Your task to perform on an android device: Open calendar and show me the third week of next month Image 0: 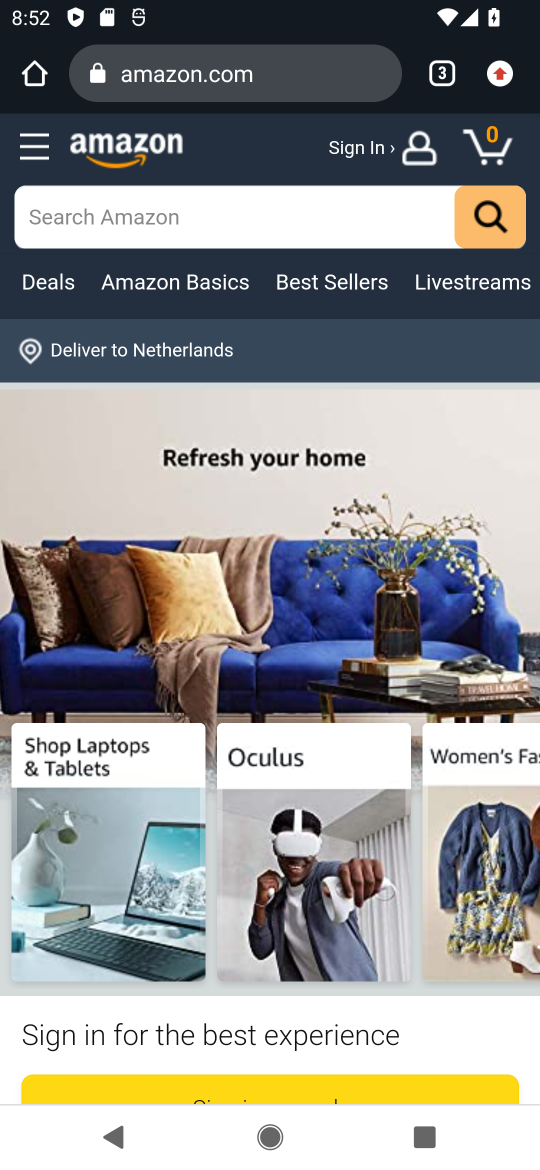
Step 0: press home button
Your task to perform on an android device: Open calendar and show me the third week of next month Image 1: 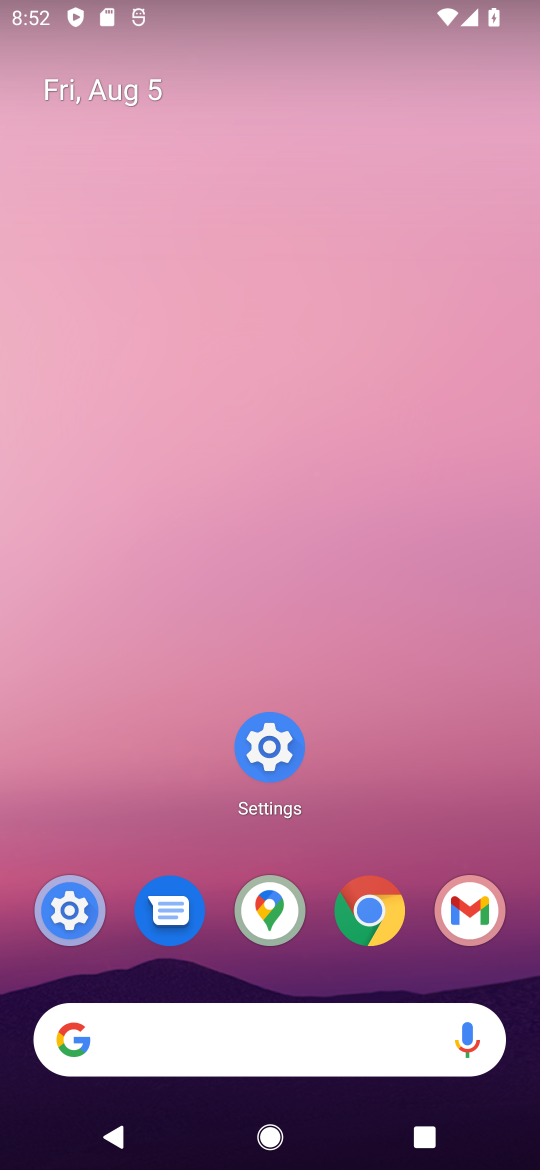
Step 1: drag from (240, 1043) to (376, 284)
Your task to perform on an android device: Open calendar and show me the third week of next month Image 2: 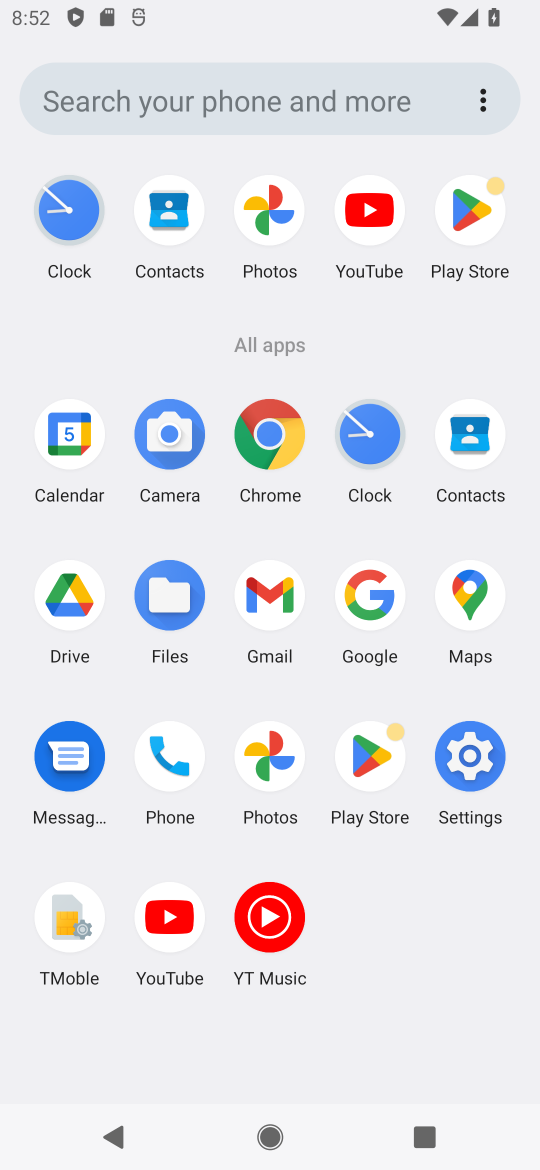
Step 2: click (72, 438)
Your task to perform on an android device: Open calendar and show me the third week of next month Image 3: 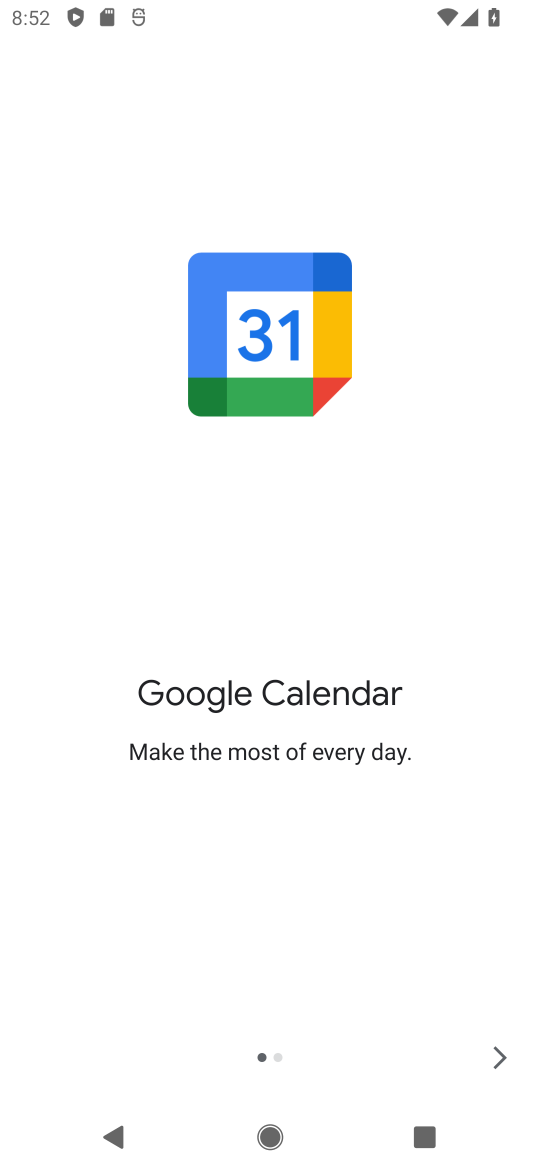
Step 3: click (505, 1047)
Your task to perform on an android device: Open calendar and show me the third week of next month Image 4: 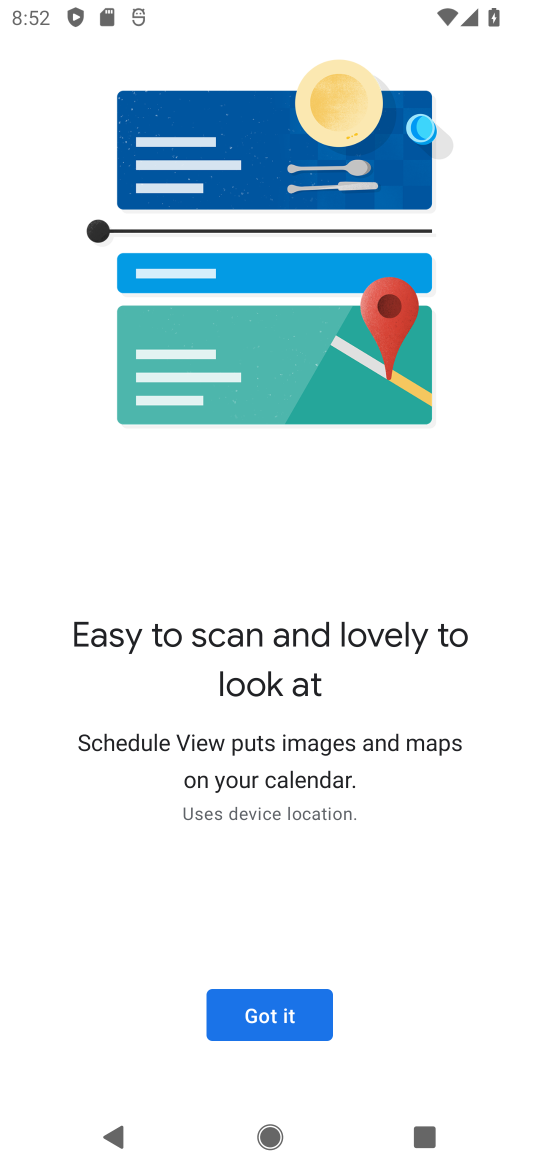
Step 4: click (284, 1004)
Your task to perform on an android device: Open calendar and show me the third week of next month Image 5: 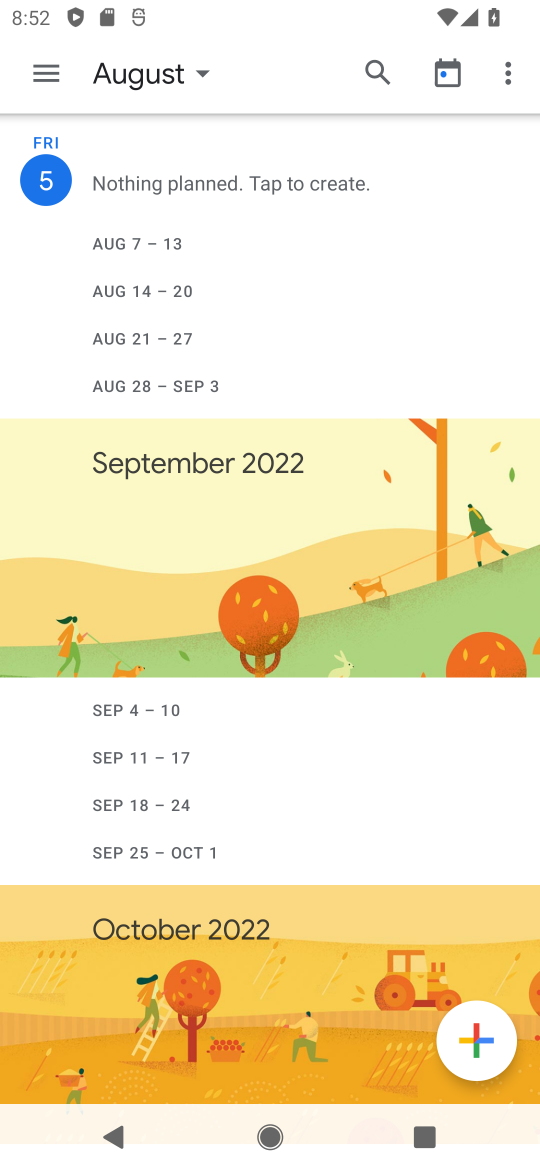
Step 5: click (160, 66)
Your task to perform on an android device: Open calendar and show me the third week of next month Image 6: 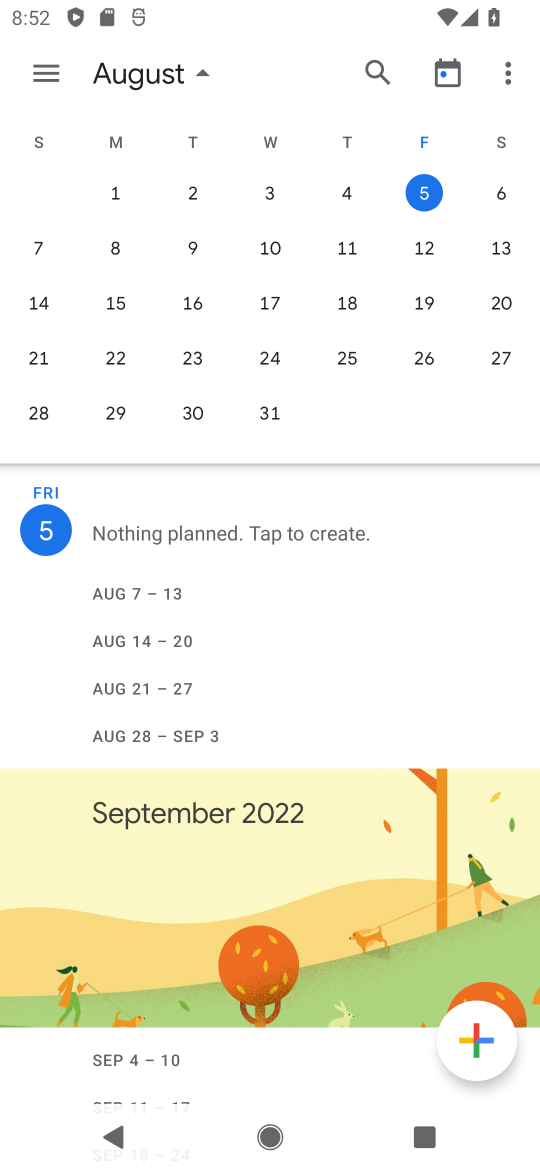
Step 6: drag from (512, 333) to (22, 356)
Your task to perform on an android device: Open calendar and show me the third week of next month Image 7: 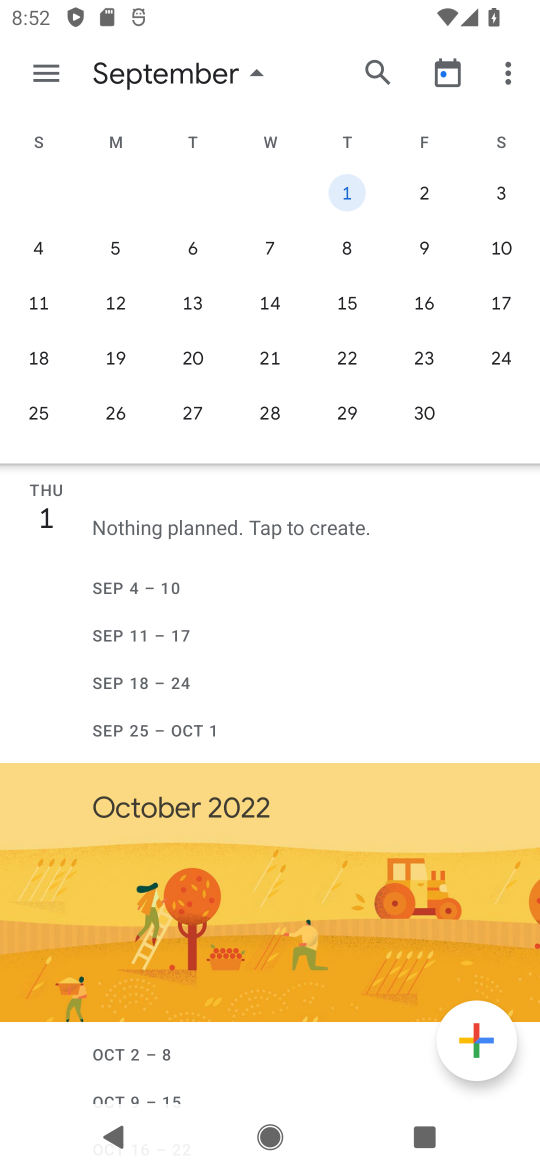
Step 7: click (45, 305)
Your task to perform on an android device: Open calendar and show me the third week of next month Image 8: 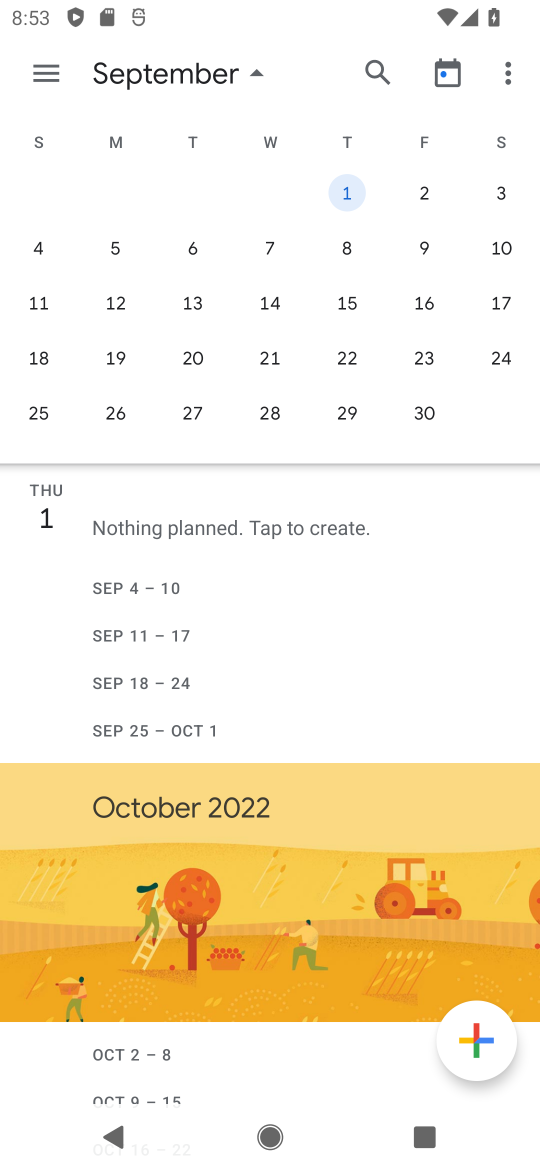
Step 8: click (35, 308)
Your task to perform on an android device: Open calendar and show me the third week of next month Image 9: 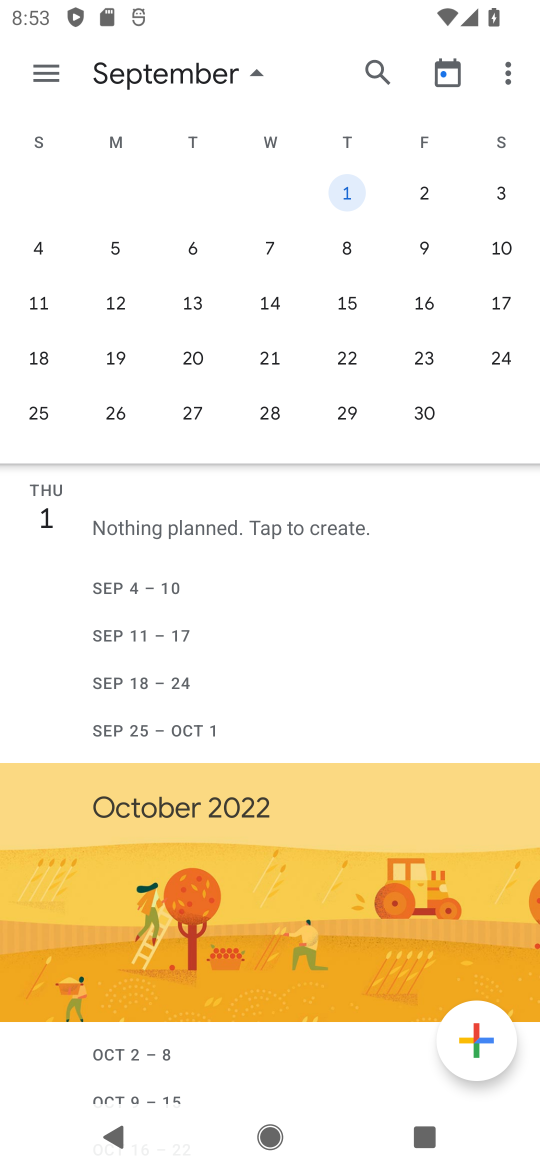
Step 9: click (53, 301)
Your task to perform on an android device: Open calendar and show me the third week of next month Image 10: 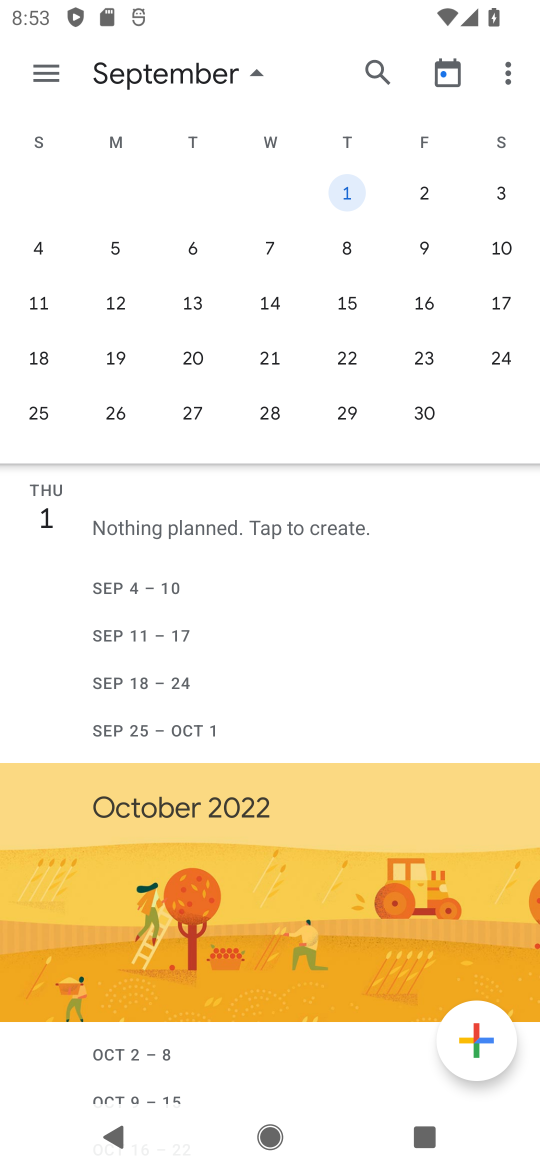
Step 10: click (45, 290)
Your task to perform on an android device: Open calendar and show me the third week of next month Image 11: 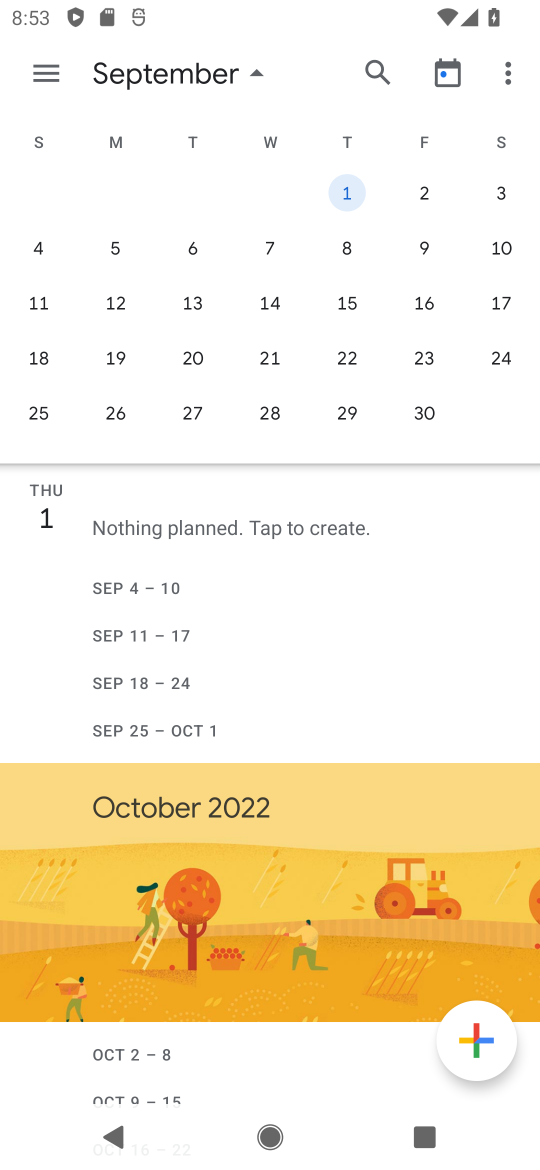
Step 11: click (43, 304)
Your task to perform on an android device: Open calendar and show me the third week of next month Image 12: 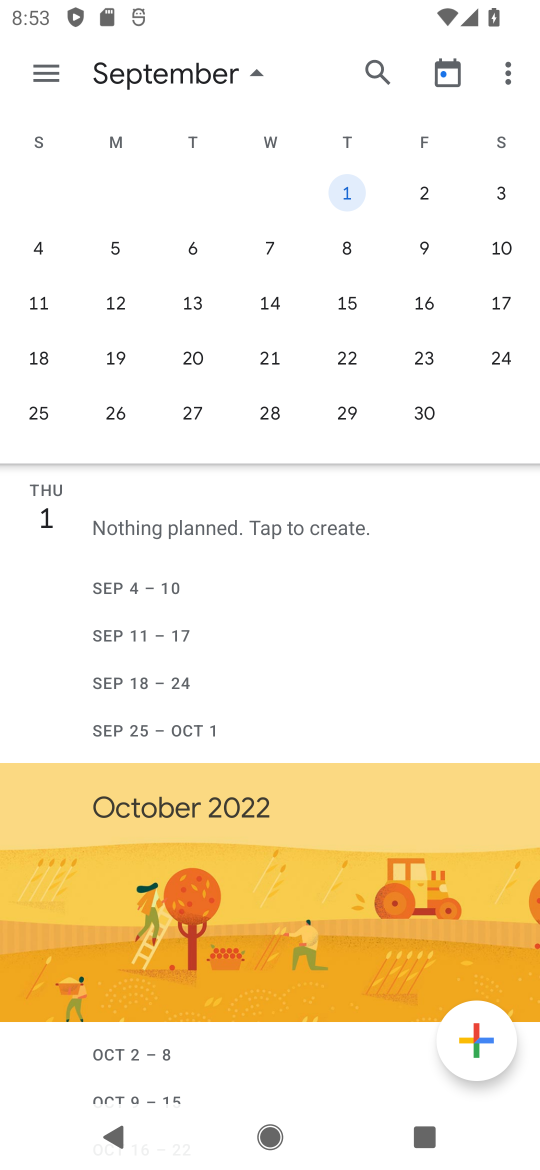
Step 12: click (43, 303)
Your task to perform on an android device: Open calendar and show me the third week of next month Image 13: 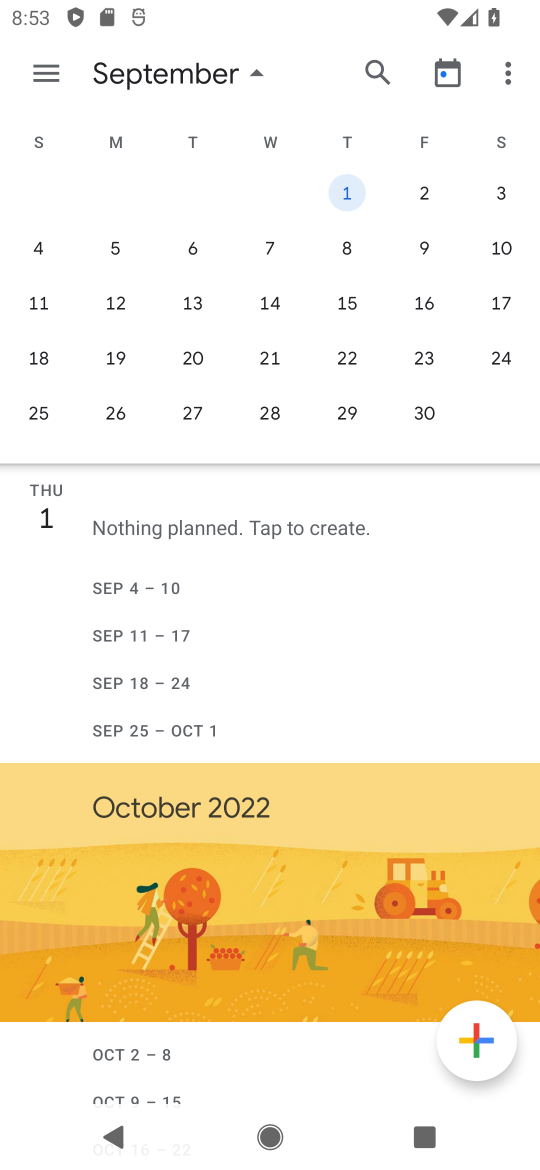
Step 13: click (50, 300)
Your task to perform on an android device: Open calendar and show me the third week of next month Image 14: 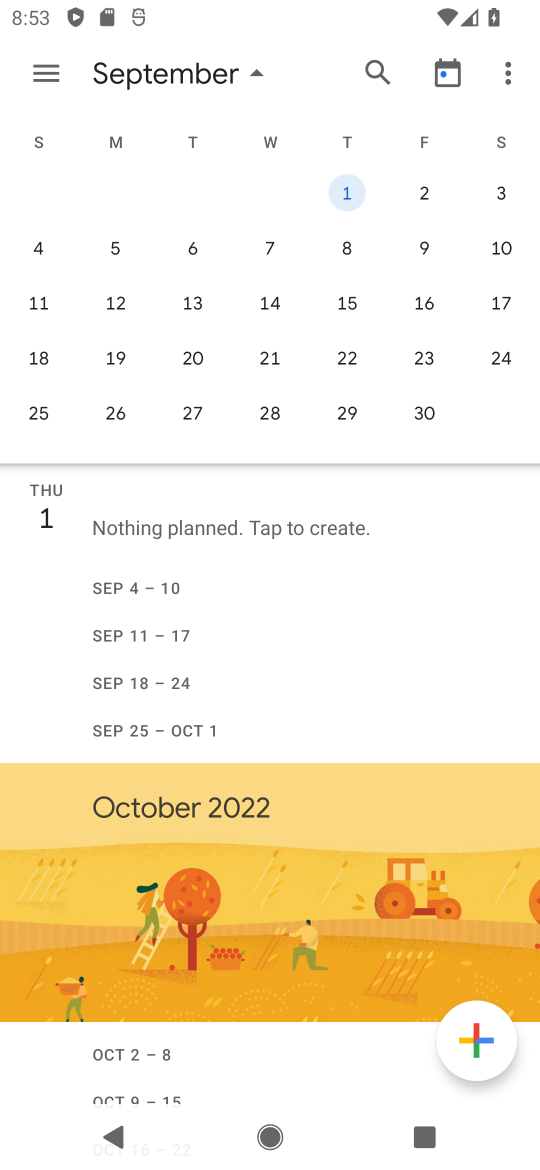
Step 14: click (45, 303)
Your task to perform on an android device: Open calendar and show me the third week of next month Image 15: 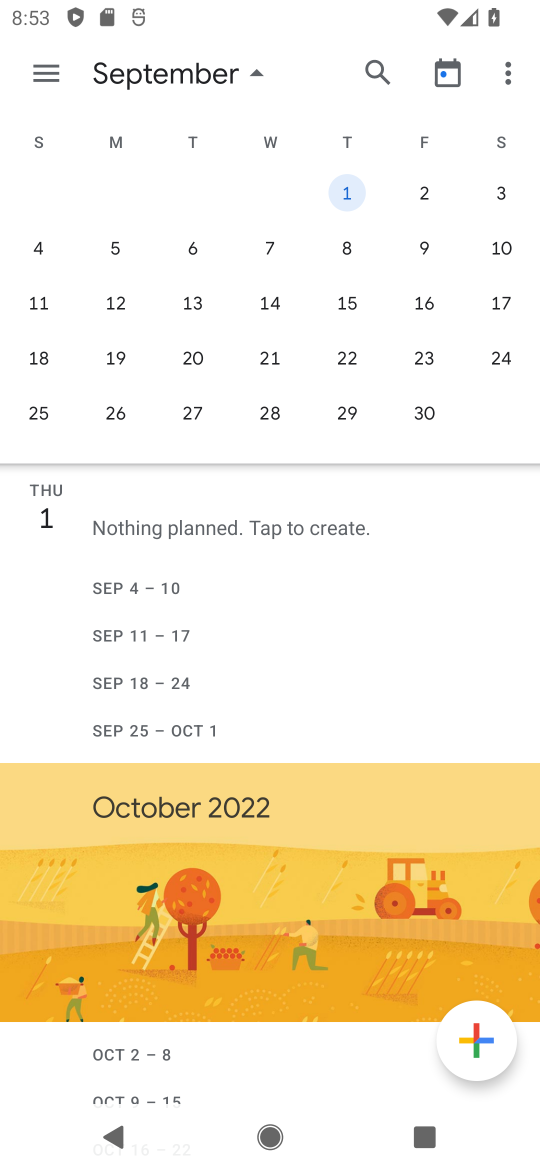
Step 15: click (45, 302)
Your task to perform on an android device: Open calendar and show me the third week of next month Image 16: 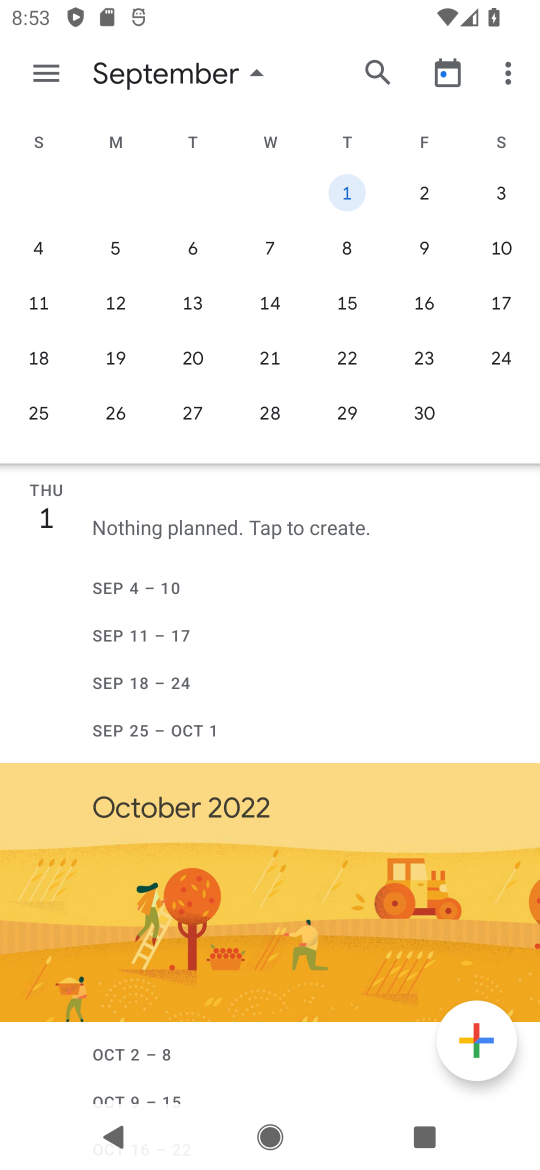
Step 16: click (112, 301)
Your task to perform on an android device: Open calendar and show me the third week of next month Image 17: 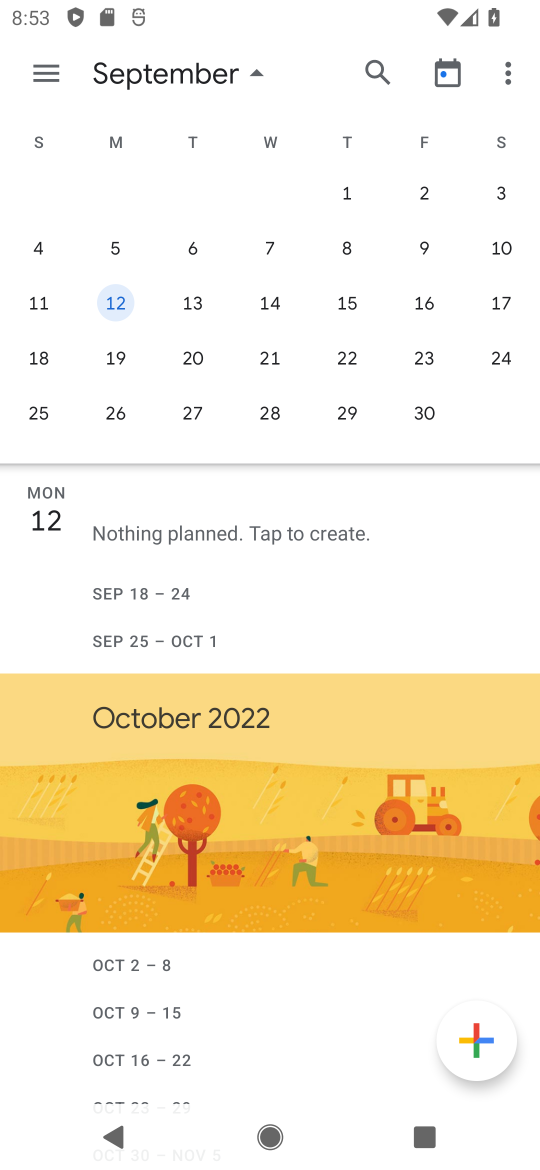
Step 17: click (42, 304)
Your task to perform on an android device: Open calendar and show me the third week of next month Image 18: 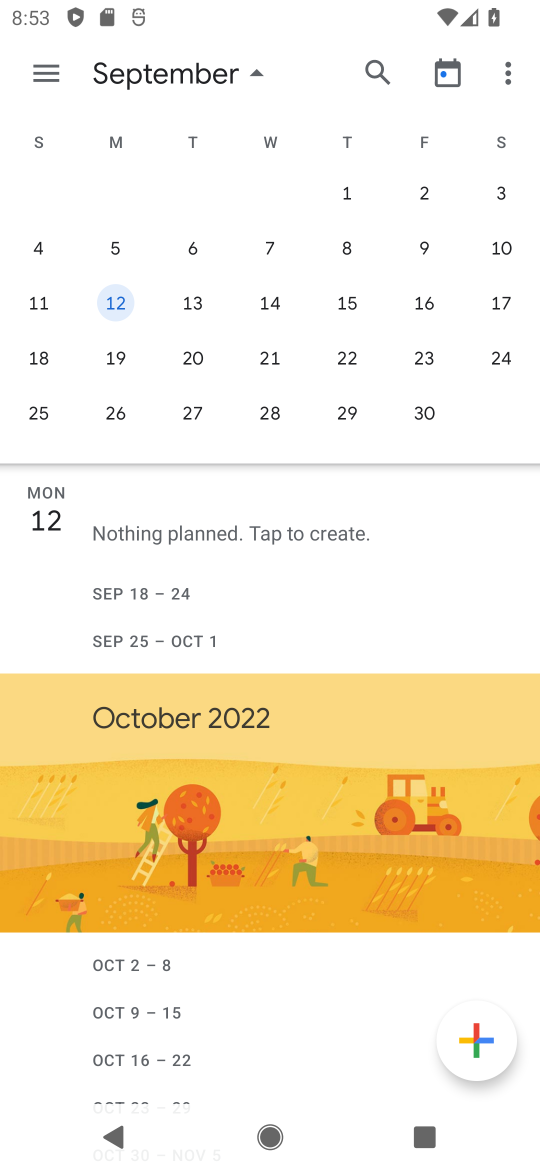
Step 18: click (33, 309)
Your task to perform on an android device: Open calendar and show me the third week of next month Image 19: 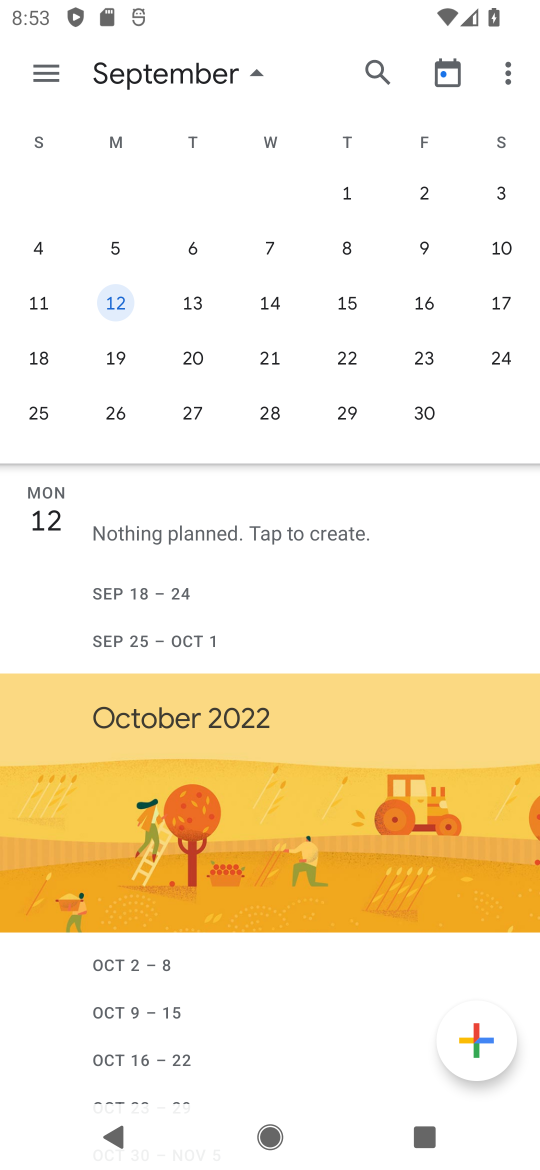
Step 19: click (62, 298)
Your task to perform on an android device: Open calendar and show me the third week of next month Image 20: 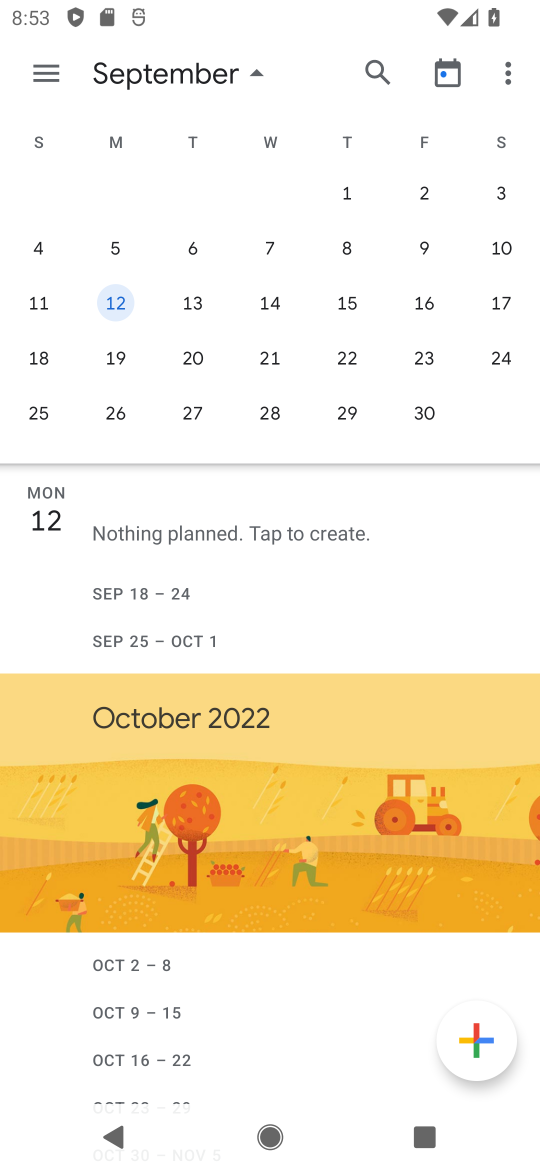
Step 20: click (58, 301)
Your task to perform on an android device: Open calendar and show me the third week of next month Image 21: 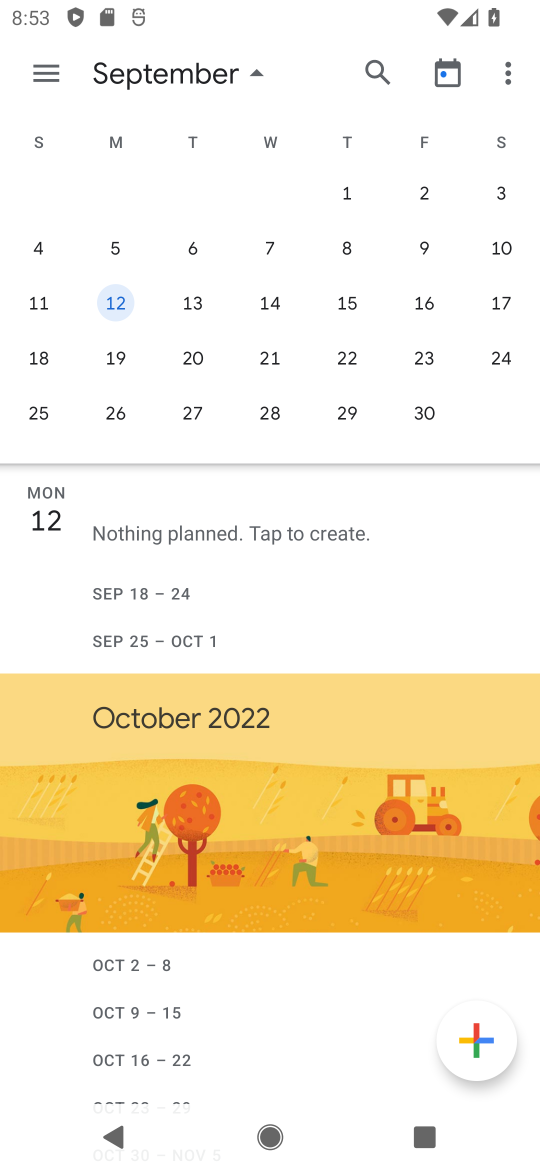
Step 21: click (58, 302)
Your task to perform on an android device: Open calendar and show me the third week of next month Image 22: 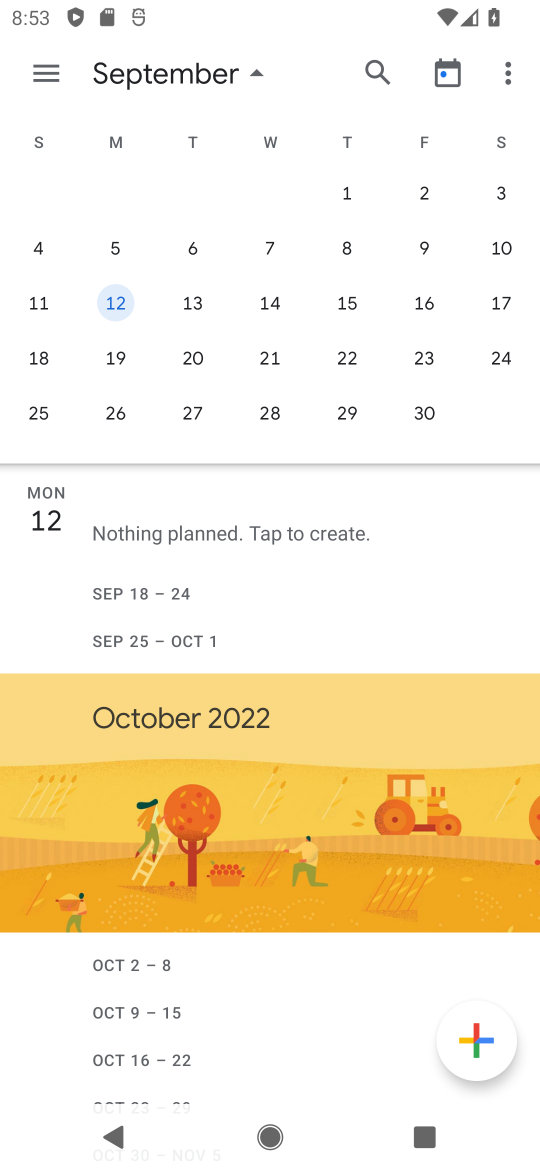
Step 22: click (42, 302)
Your task to perform on an android device: Open calendar and show me the third week of next month Image 23: 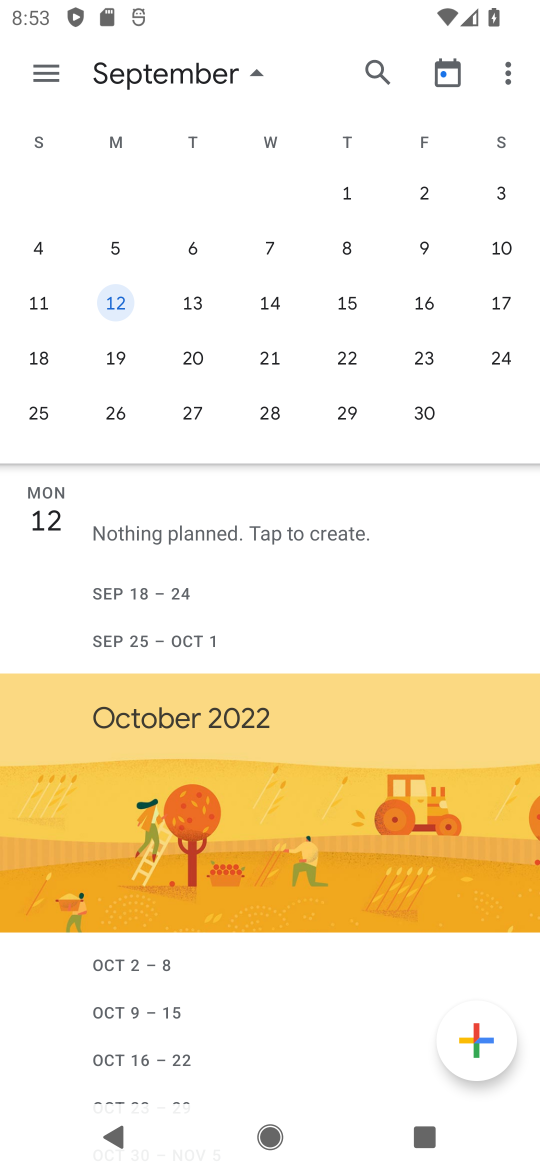
Step 23: click (46, 298)
Your task to perform on an android device: Open calendar and show me the third week of next month Image 24: 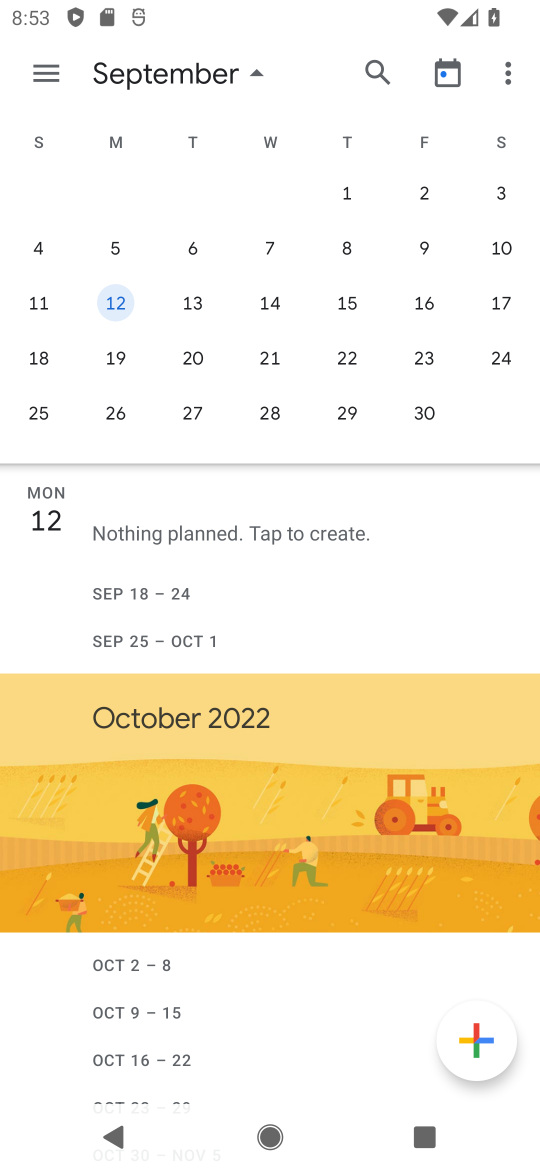
Step 24: click (47, 64)
Your task to perform on an android device: Open calendar and show me the third week of next month Image 25: 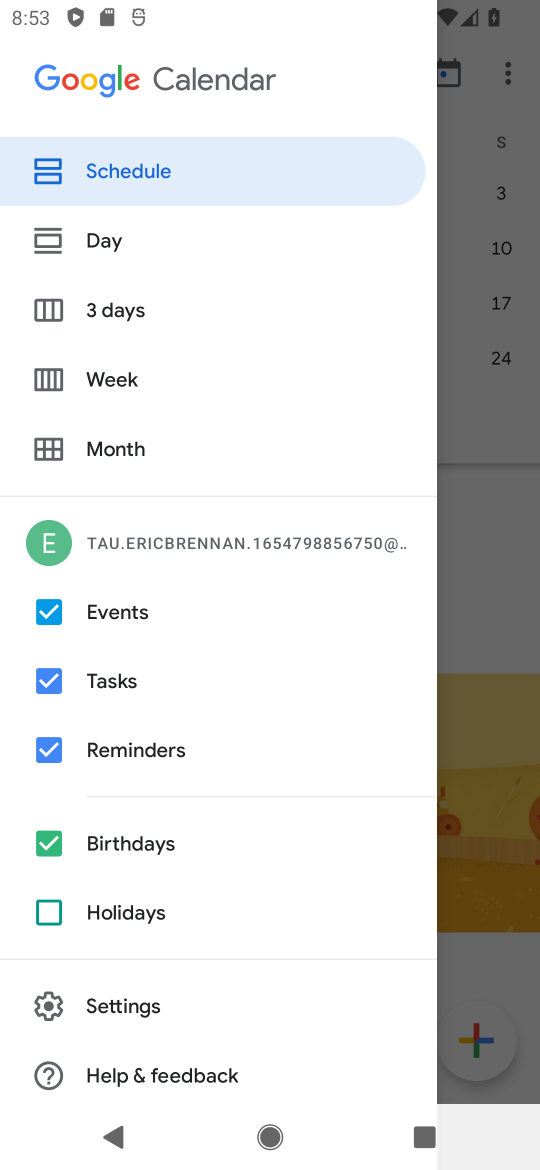
Step 25: click (100, 380)
Your task to perform on an android device: Open calendar and show me the third week of next month Image 26: 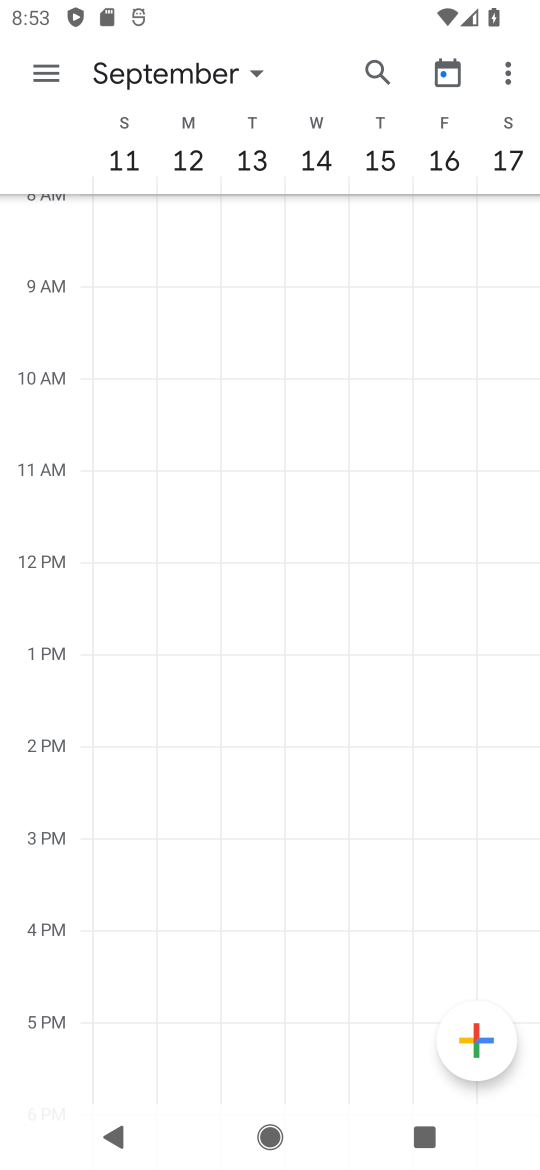
Step 26: task complete